Your task to perform on an android device: empty trash in google photos Image 0: 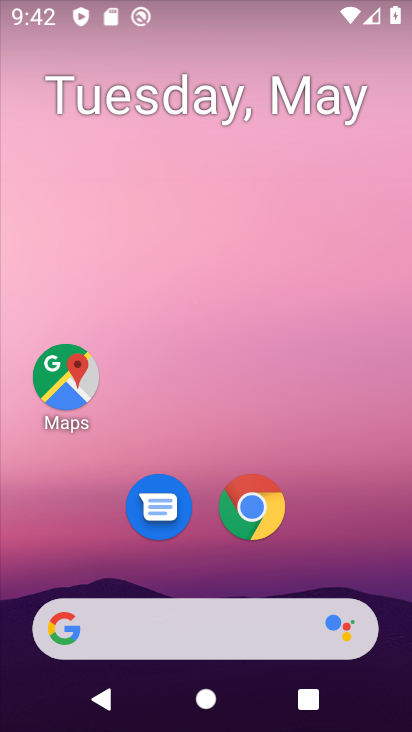
Step 0: drag from (365, 562) to (264, 250)
Your task to perform on an android device: empty trash in google photos Image 1: 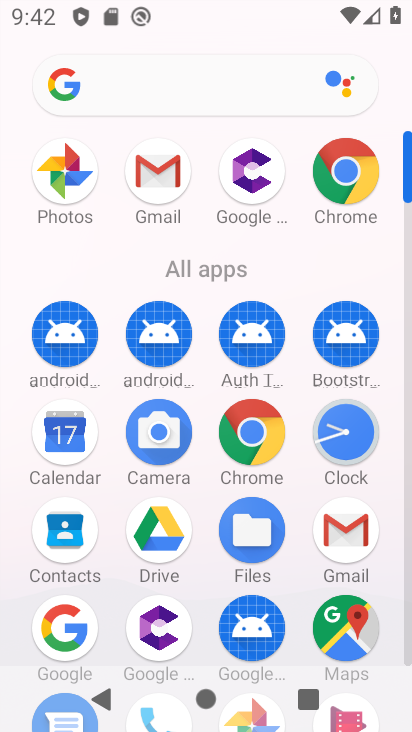
Step 1: click (51, 159)
Your task to perform on an android device: empty trash in google photos Image 2: 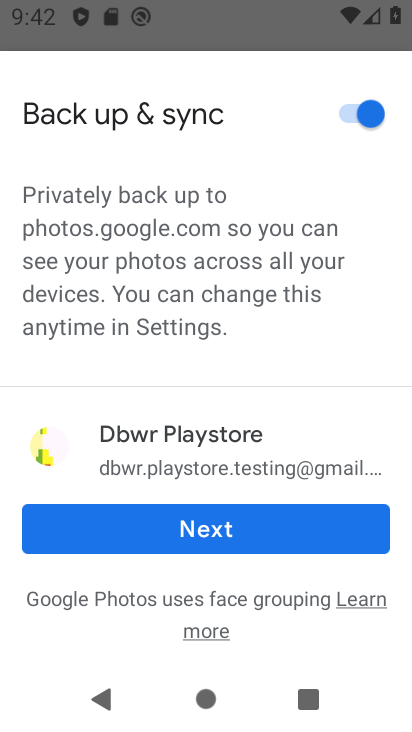
Step 2: click (260, 540)
Your task to perform on an android device: empty trash in google photos Image 3: 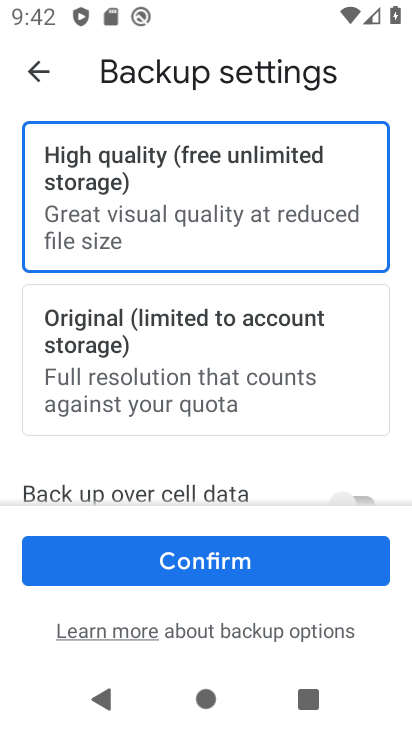
Step 3: click (181, 574)
Your task to perform on an android device: empty trash in google photos Image 4: 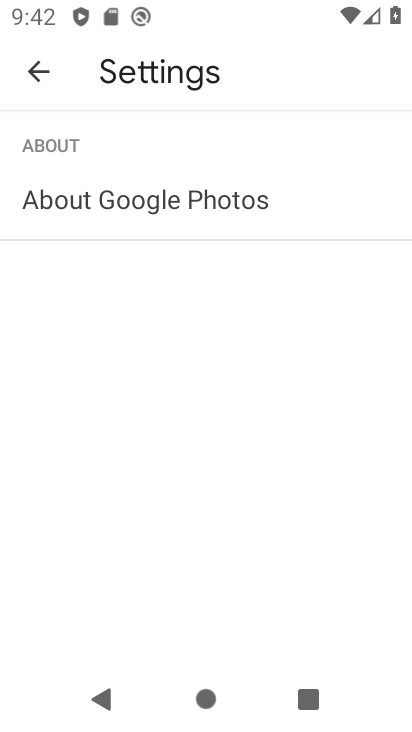
Step 4: click (41, 71)
Your task to perform on an android device: empty trash in google photos Image 5: 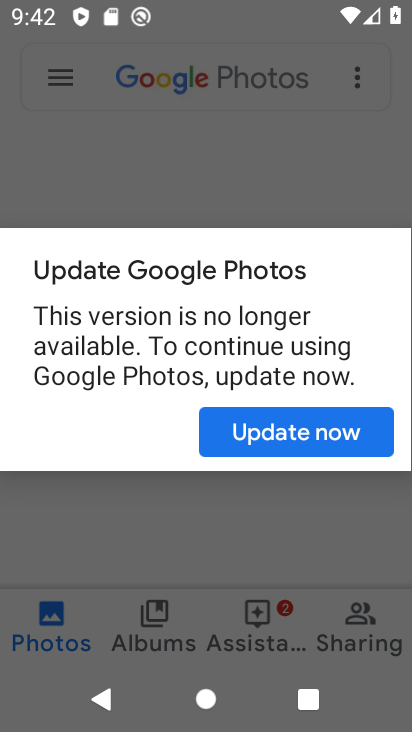
Step 5: click (297, 432)
Your task to perform on an android device: empty trash in google photos Image 6: 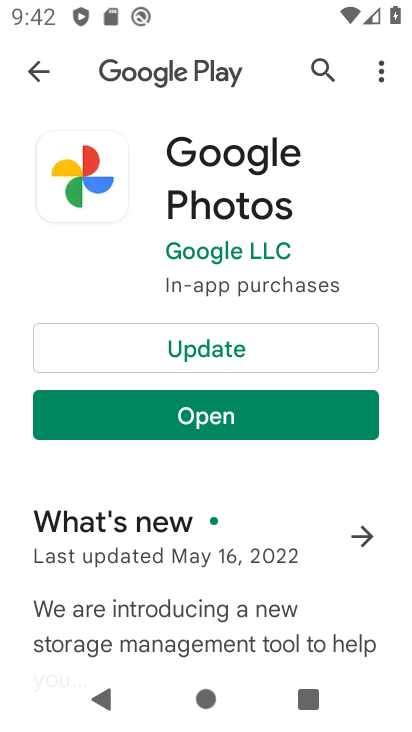
Step 6: click (257, 353)
Your task to perform on an android device: empty trash in google photos Image 7: 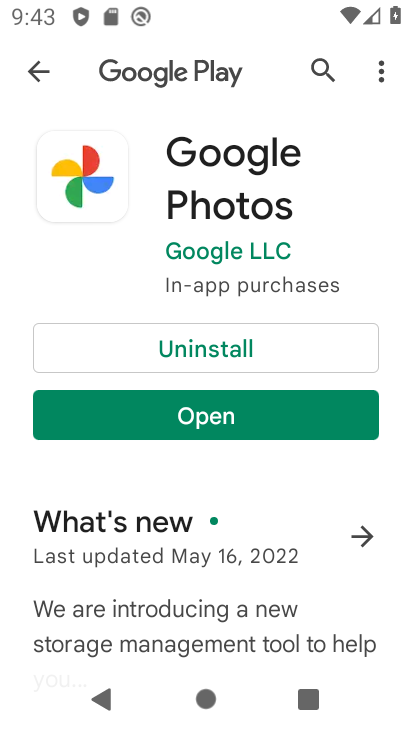
Step 7: click (275, 414)
Your task to perform on an android device: empty trash in google photos Image 8: 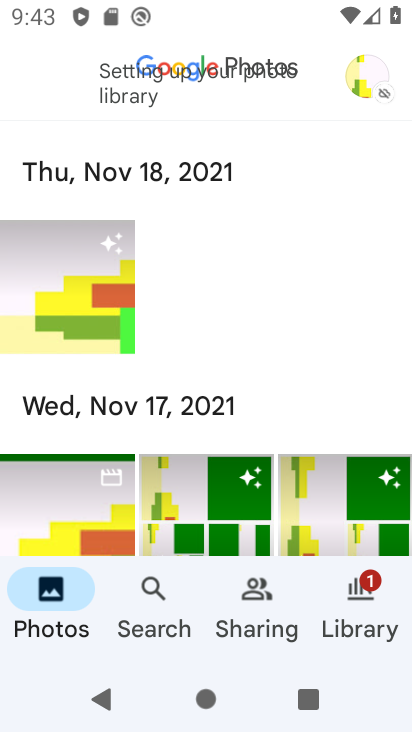
Step 8: click (364, 78)
Your task to perform on an android device: empty trash in google photos Image 9: 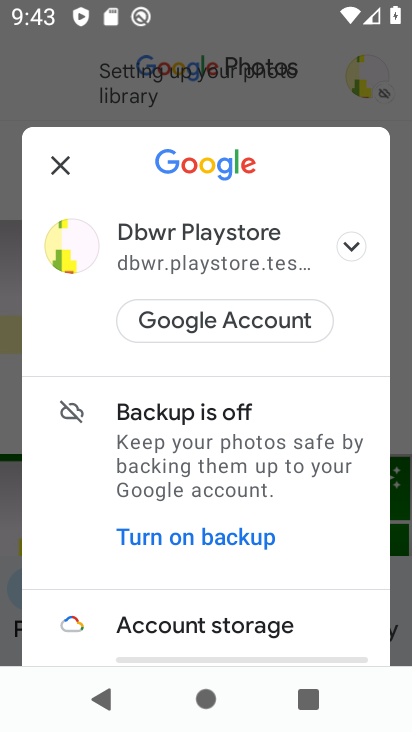
Step 9: task complete